Your task to perform on an android device: turn off airplane mode Image 0: 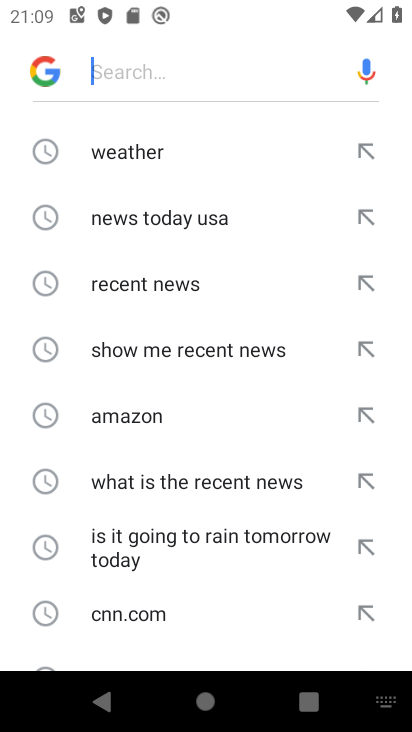
Step 0: press home button
Your task to perform on an android device: turn off airplane mode Image 1: 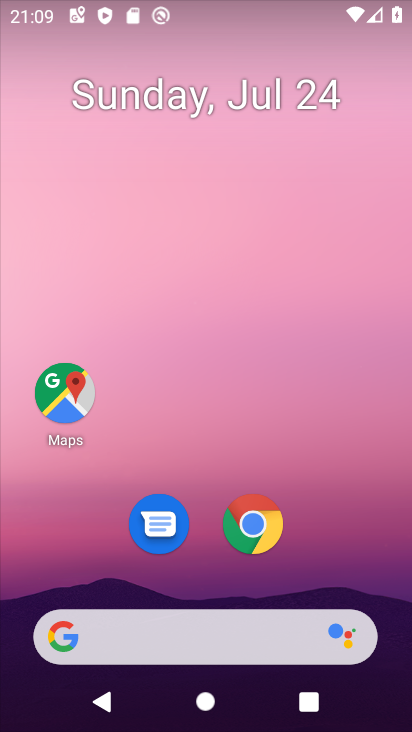
Step 1: drag from (207, 642) to (293, 90)
Your task to perform on an android device: turn off airplane mode Image 2: 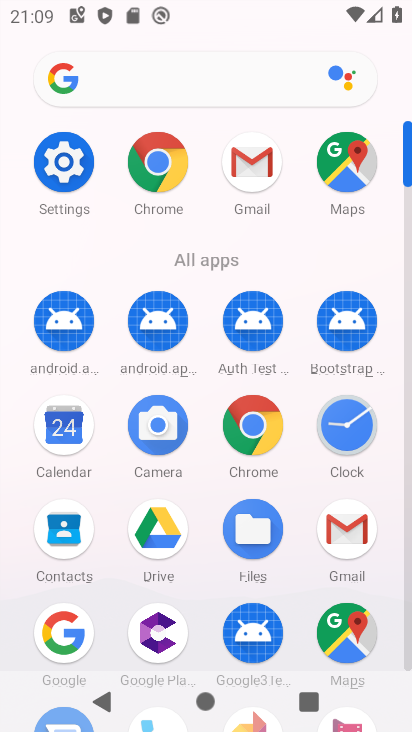
Step 2: click (70, 179)
Your task to perform on an android device: turn off airplane mode Image 3: 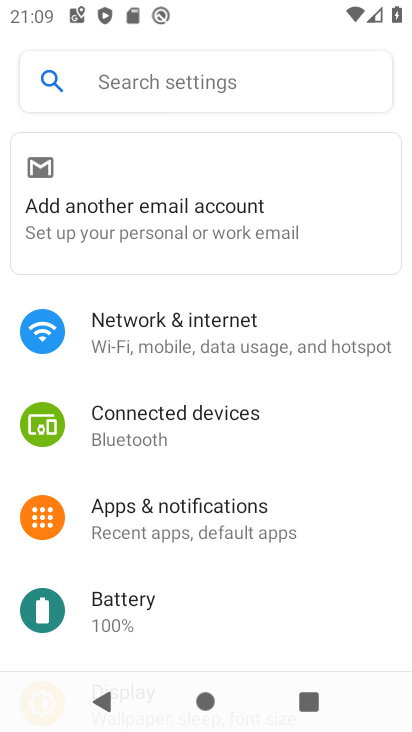
Step 3: click (226, 325)
Your task to perform on an android device: turn off airplane mode Image 4: 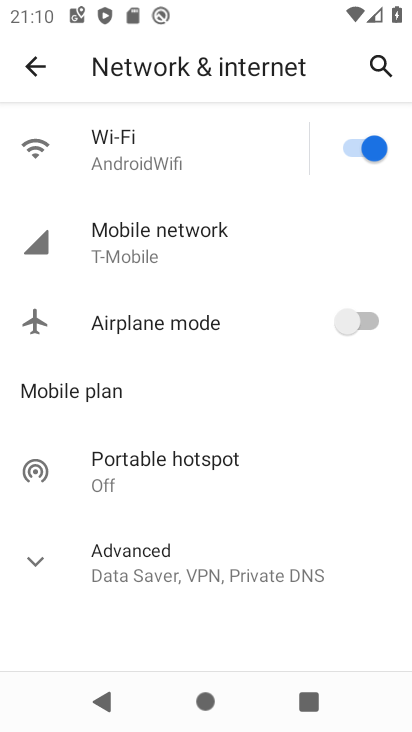
Step 4: task complete